Your task to perform on an android device: delete a single message in the gmail app Image 0: 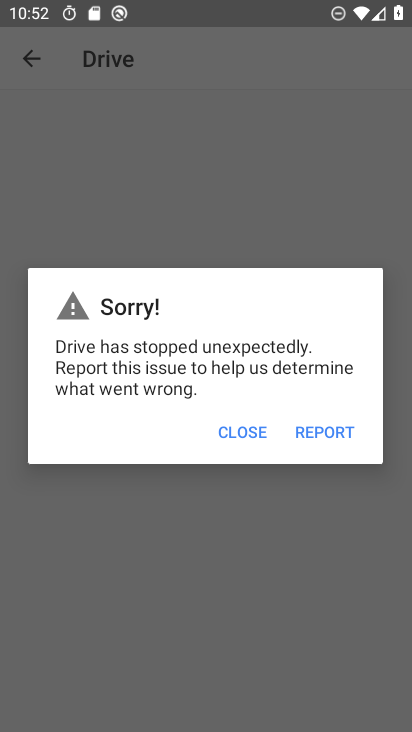
Step 0: press home button
Your task to perform on an android device: delete a single message in the gmail app Image 1: 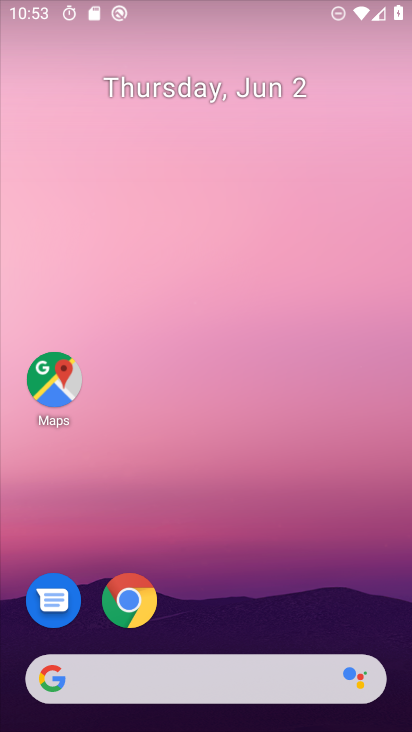
Step 1: drag from (220, 600) to (234, 105)
Your task to perform on an android device: delete a single message in the gmail app Image 2: 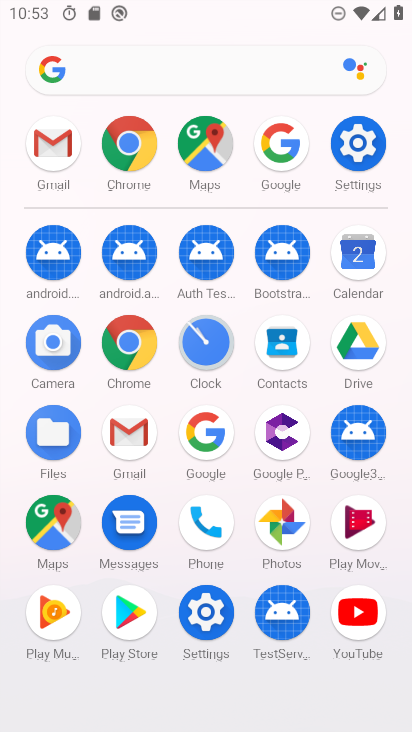
Step 2: click (122, 435)
Your task to perform on an android device: delete a single message in the gmail app Image 3: 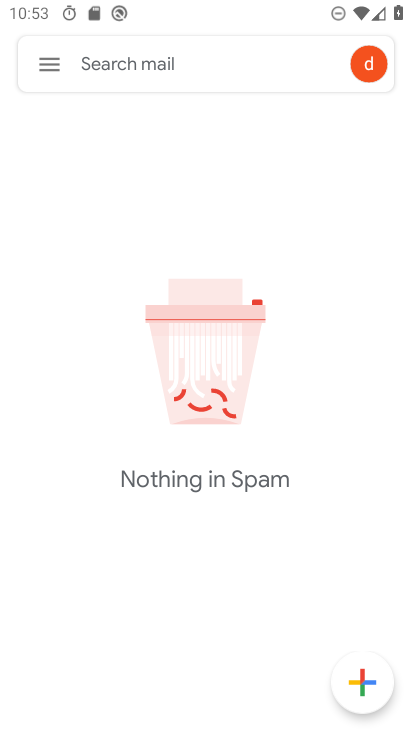
Step 3: click (57, 57)
Your task to perform on an android device: delete a single message in the gmail app Image 4: 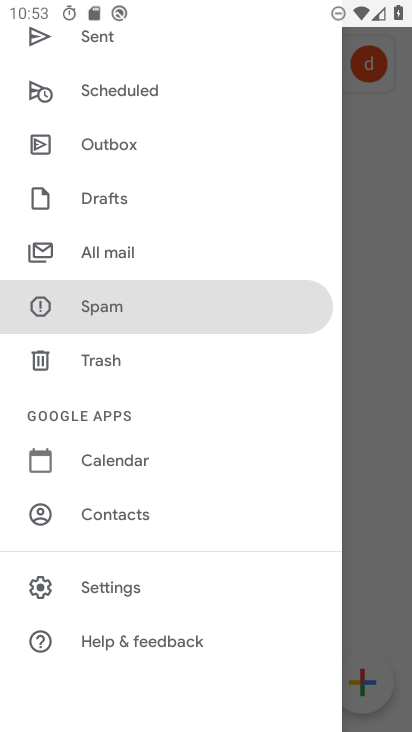
Step 4: click (133, 255)
Your task to perform on an android device: delete a single message in the gmail app Image 5: 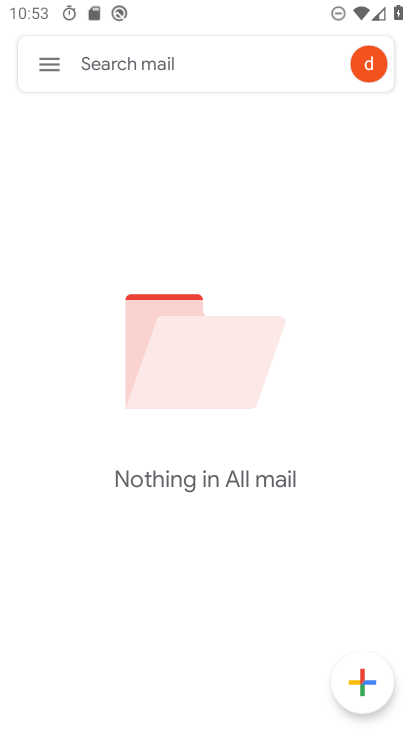
Step 5: task complete